Your task to perform on an android device: change notifications settings Image 0: 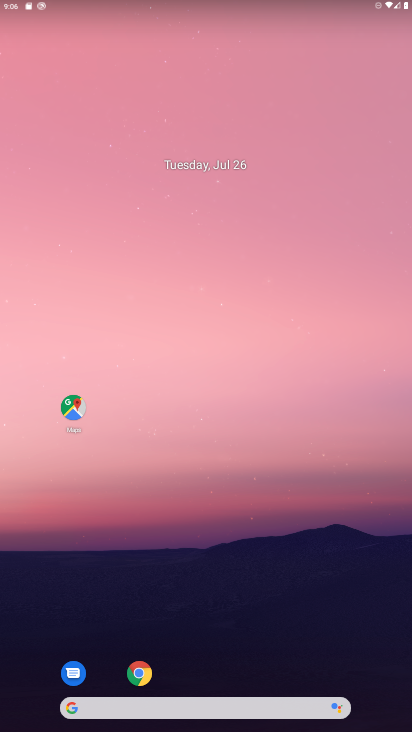
Step 0: drag from (253, 664) to (266, 3)
Your task to perform on an android device: change notifications settings Image 1: 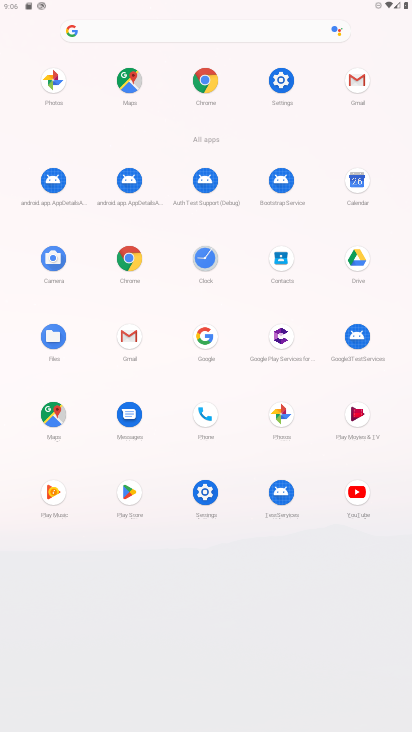
Step 1: click (274, 97)
Your task to perform on an android device: change notifications settings Image 2: 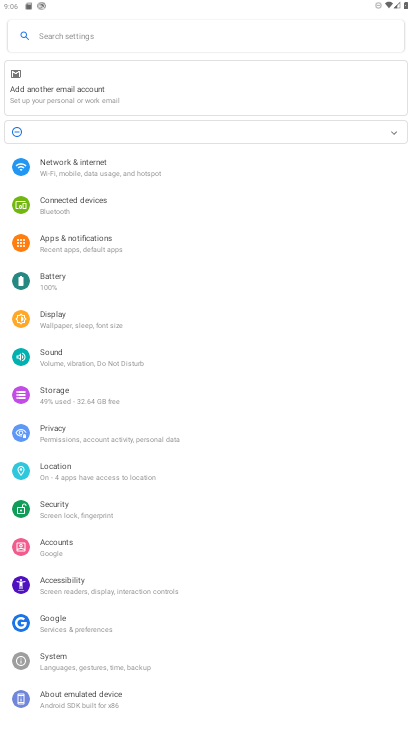
Step 2: click (74, 251)
Your task to perform on an android device: change notifications settings Image 3: 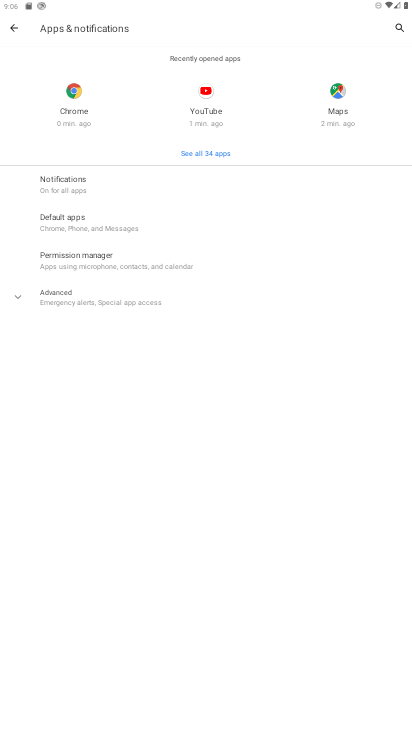
Step 3: click (59, 190)
Your task to perform on an android device: change notifications settings Image 4: 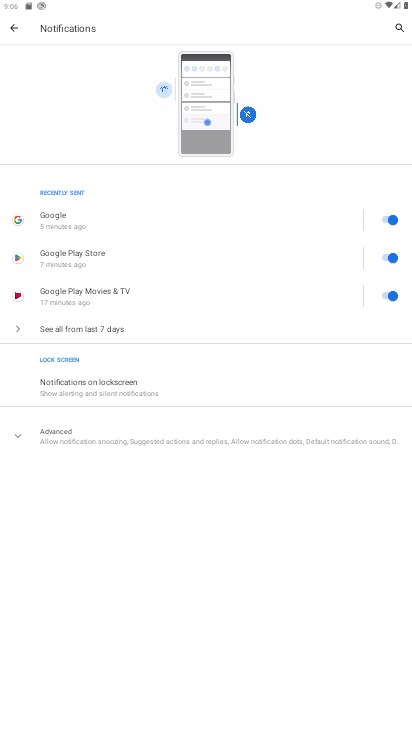
Step 4: click (85, 336)
Your task to perform on an android device: change notifications settings Image 5: 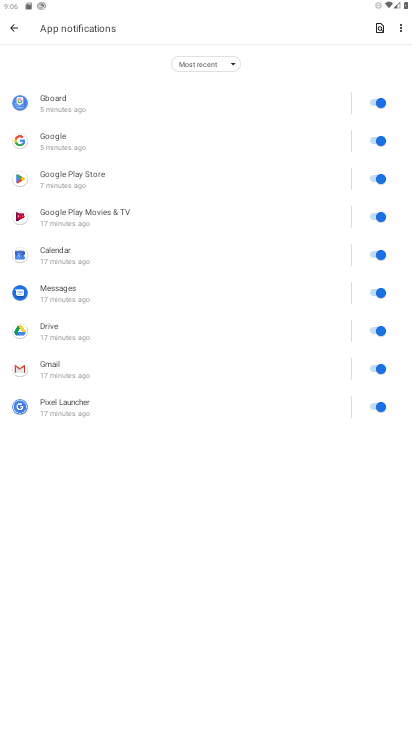
Step 5: click (232, 64)
Your task to perform on an android device: change notifications settings Image 6: 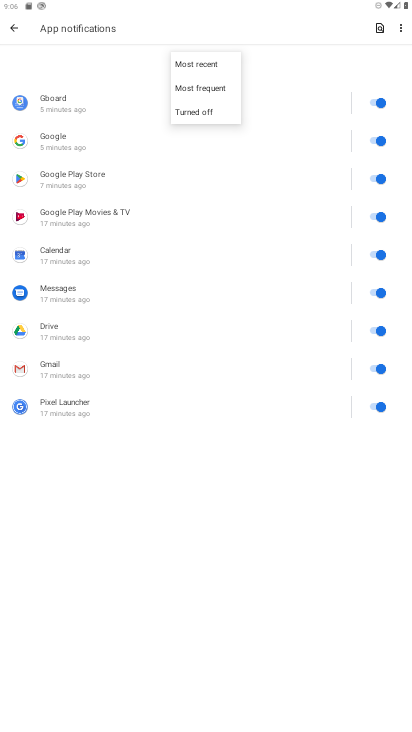
Step 6: click (205, 88)
Your task to perform on an android device: change notifications settings Image 7: 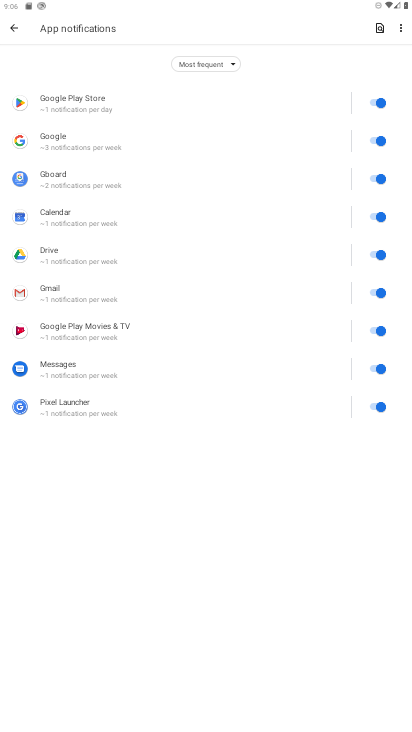
Step 7: task complete